Your task to perform on an android device: open a bookmark in the chrome app Image 0: 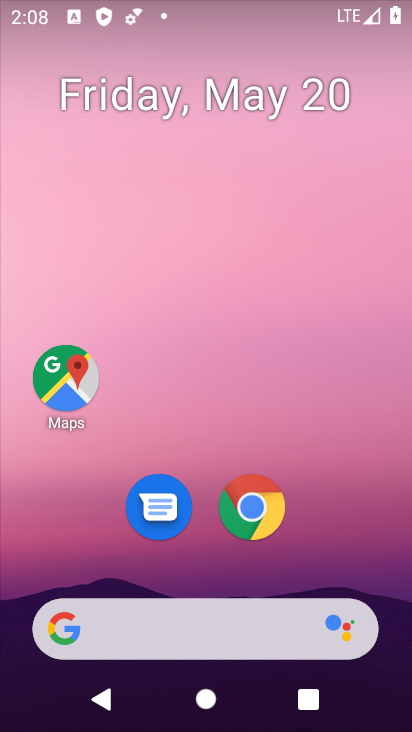
Step 0: click (253, 501)
Your task to perform on an android device: open a bookmark in the chrome app Image 1: 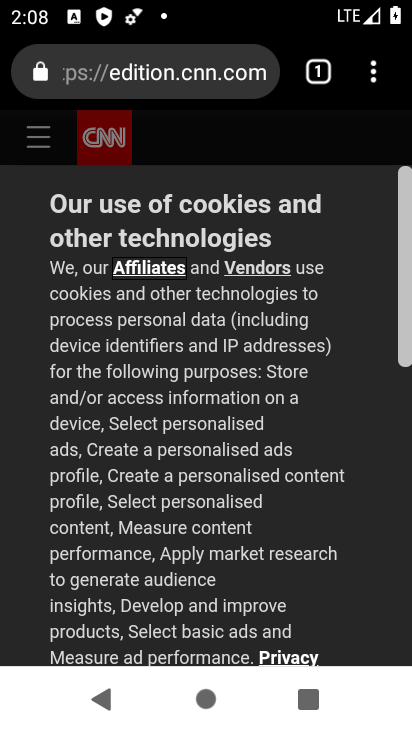
Step 1: click (369, 77)
Your task to perform on an android device: open a bookmark in the chrome app Image 2: 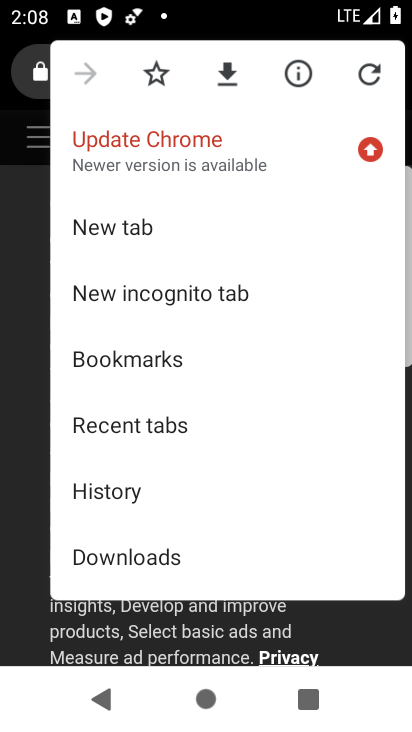
Step 2: click (170, 364)
Your task to perform on an android device: open a bookmark in the chrome app Image 3: 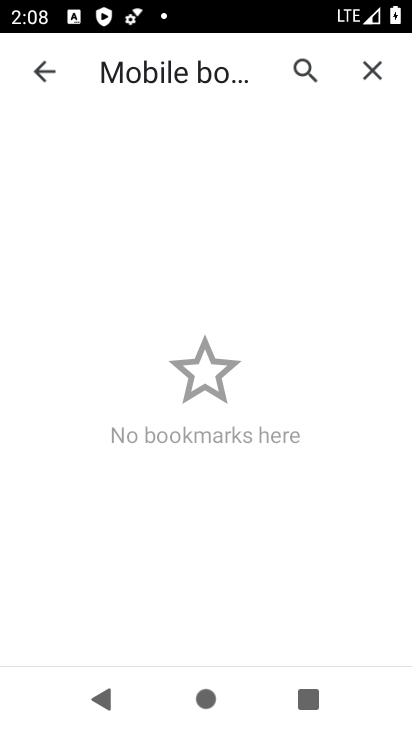
Step 3: task complete